Your task to perform on an android device: What's the news in Sri Lanka? Image 0: 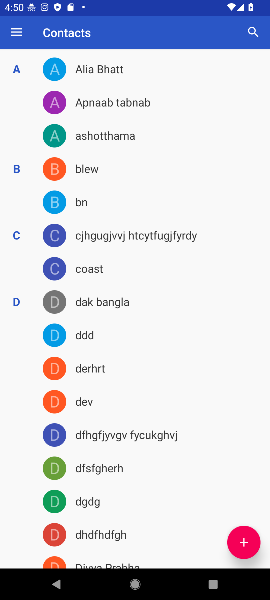
Step 0: press home button
Your task to perform on an android device: What's the news in Sri Lanka? Image 1: 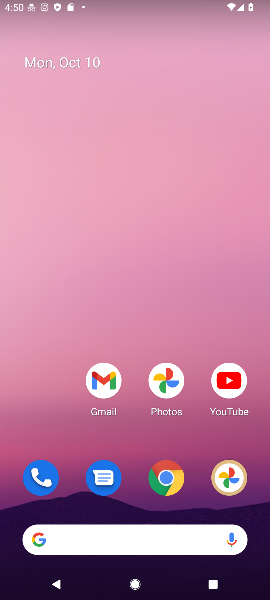
Step 1: click (169, 472)
Your task to perform on an android device: What's the news in Sri Lanka? Image 2: 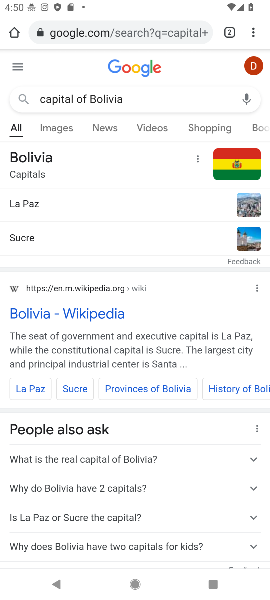
Step 2: click (134, 29)
Your task to perform on an android device: What's the news in Sri Lanka? Image 3: 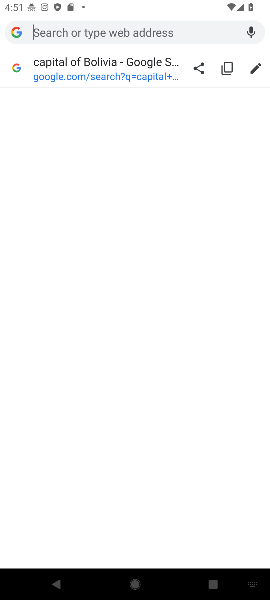
Step 3: type "What's the news in Sri Lanka?"
Your task to perform on an android device: What's the news in Sri Lanka? Image 4: 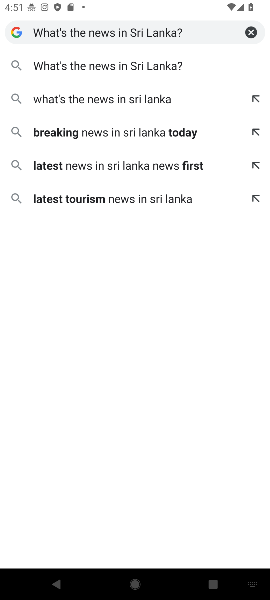
Step 4: click (143, 62)
Your task to perform on an android device: What's the news in Sri Lanka? Image 5: 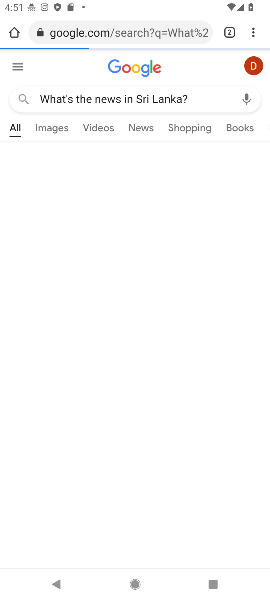
Step 5: click (143, 62)
Your task to perform on an android device: What's the news in Sri Lanka? Image 6: 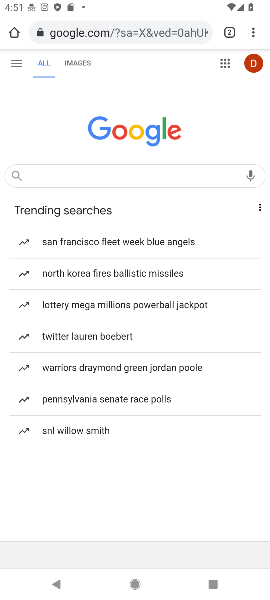
Step 6: click (112, 37)
Your task to perform on an android device: What's the news in Sri Lanka? Image 7: 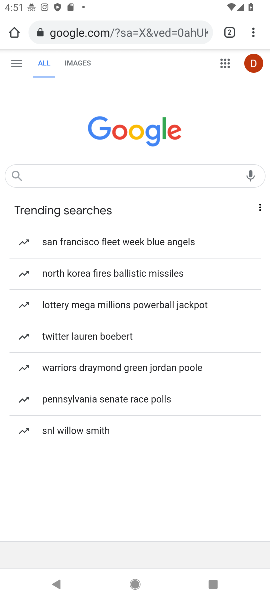
Step 7: click (112, 37)
Your task to perform on an android device: What's the news in Sri Lanka? Image 8: 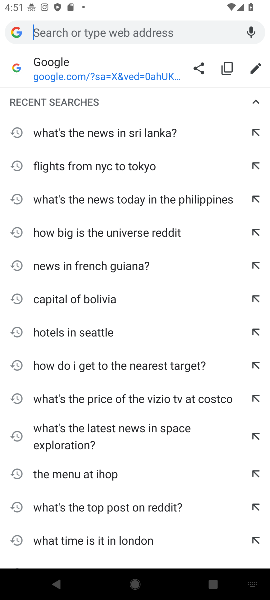
Step 8: click (138, 140)
Your task to perform on an android device: What's the news in Sri Lanka? Image 9: 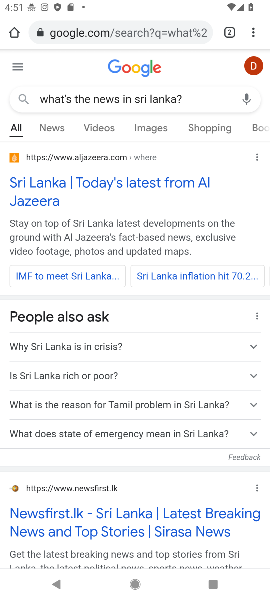
Step 9: click (60, 132)
Your task to perform on an android device: What's the news in Sri Lanka? Image 10: 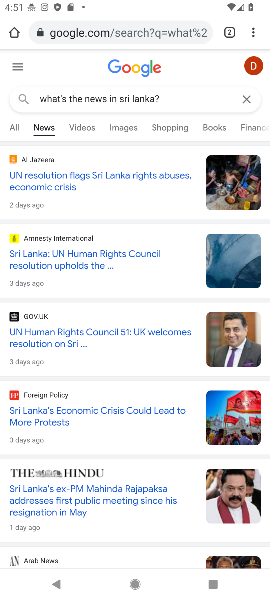
Step 10: task complete